Your task to perform on an android device: Look up the best selling patio furniture on Home Depot Image 0: 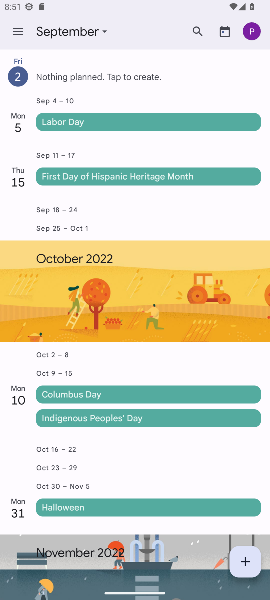
Step 0: press home button
Your task to perform on an android device: Look up the best selling patio furniture on Home Depot Image 1: 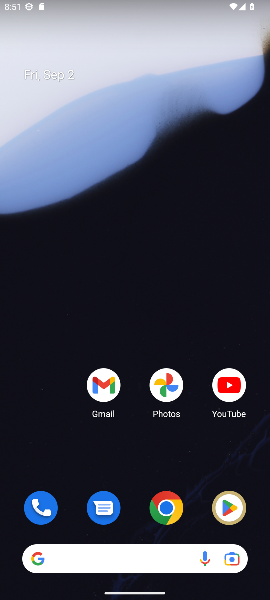
Step 1: click (166, 512)
Your task to perform on an android device: Look up the best selling patio furniture on Home Depot Image 2: 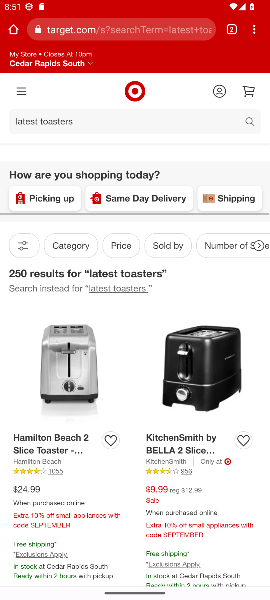
Step 2: click (129, 22)
Your task to perform on an android device: Look up the best selling patio furniture on Home Depot Image 3: 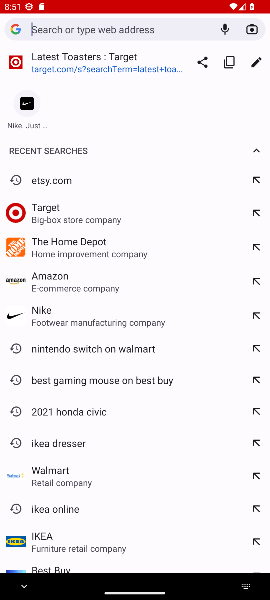
Step 3: type "best selling patio furniture"
Your task to perform on an android device: Look up the best selling patio furniture on Home Depot Image 4: 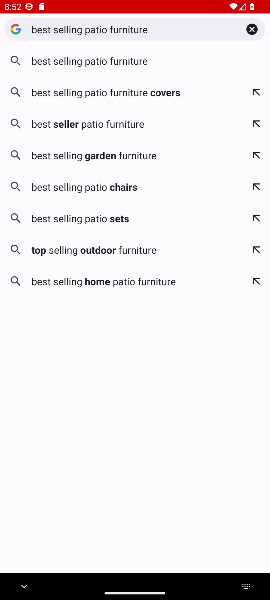
Step 4: click (98, 55)
Your task to perform on an android device: Look up the best selling patio furniture on Home Depot Image 5: 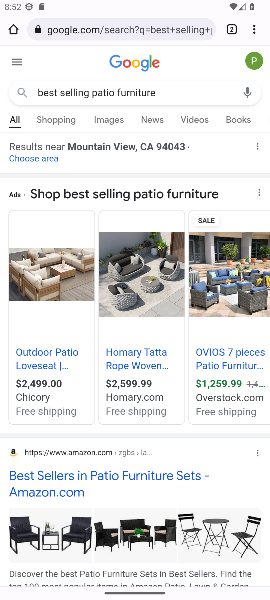
Step 5: task complete